Your task to perform on an android device: star an email in the gmail app Image 0: 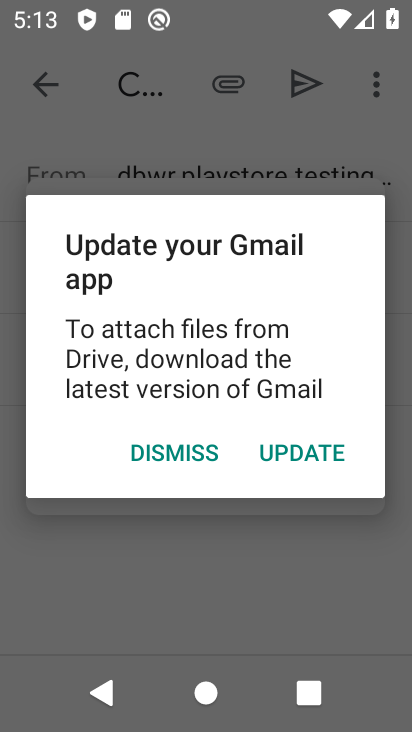
Step 0: press home button
Your task to perform on an android device: star an email in the gmail app Image 1: 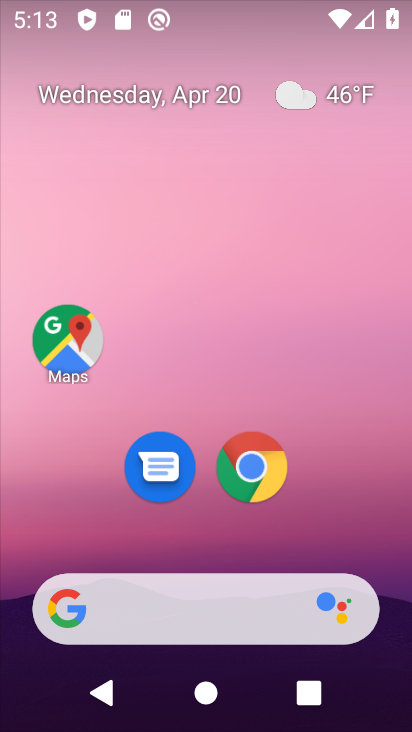
Step 1: drag from (223, 352) to (315, 32)
Your task to perform on an android device: star an email in the gmail app Image 2: 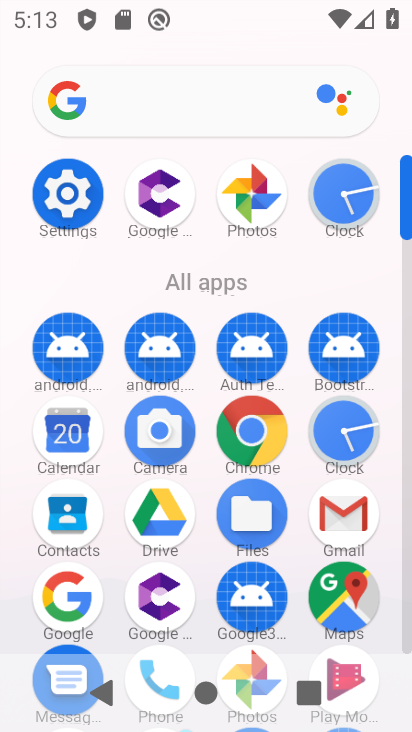
Step 2: click (347, 517)
Your task to perform on an android device: star an email in the gmail app Image 3: 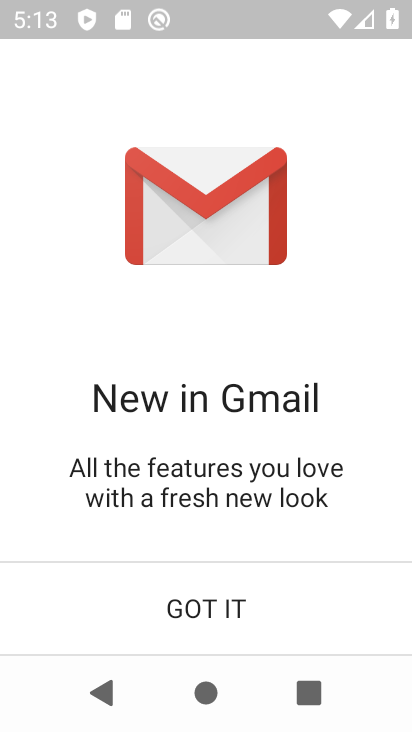
Step 3: click (247, 598)
Your task to perform on an android device: star an email in the gmail app Image 4: 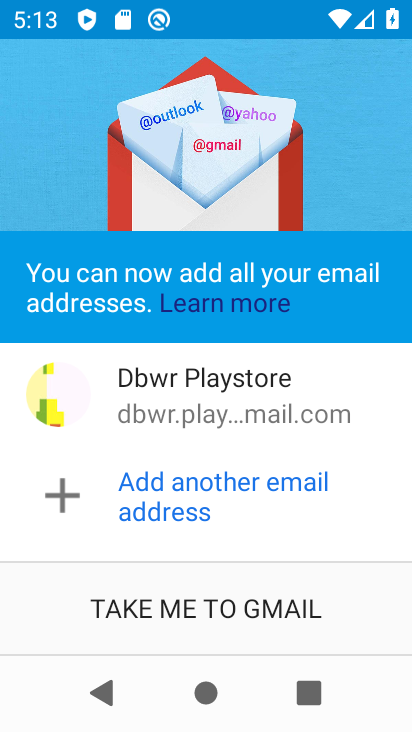
Step 4: click (244, 601)
Your task to perform on an android device: star an email in the gmail app Image 5: 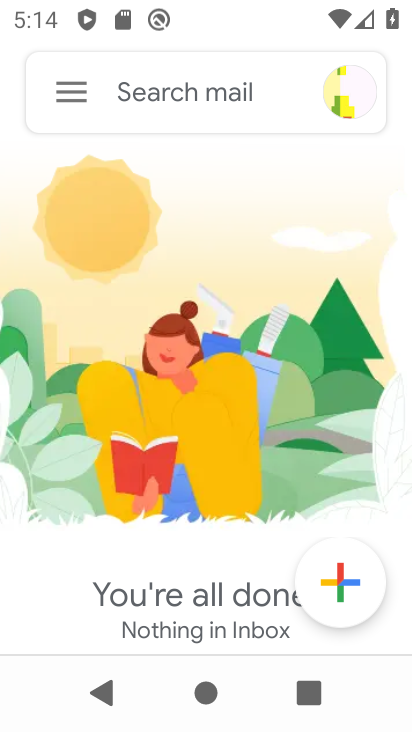
Step 5: click (65, 106)
Your task to perform on an android device: star an email in the gmail app Image 6: 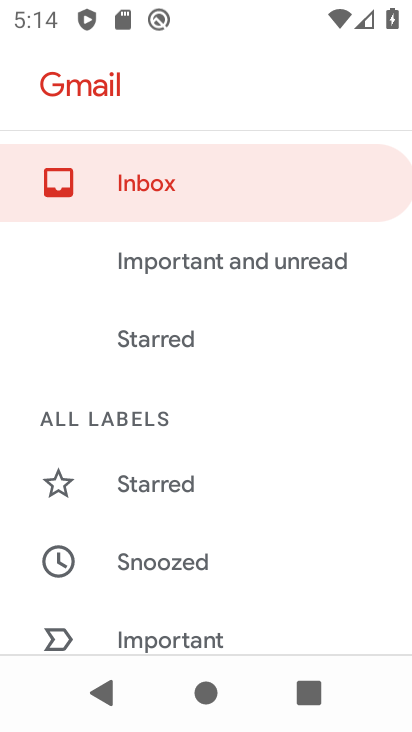
Step 6: drag from (129, 529) to (208, 223)
Your task to perform on an android device: star an email in the gmail app Image 7: 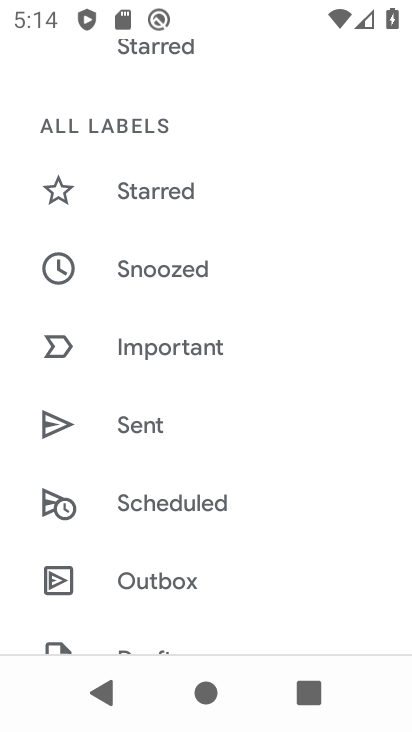
Step 7: drag from (145, 539) to (215, 98)
Your task to perform on an android device: star an email in the gmail app Image 8: 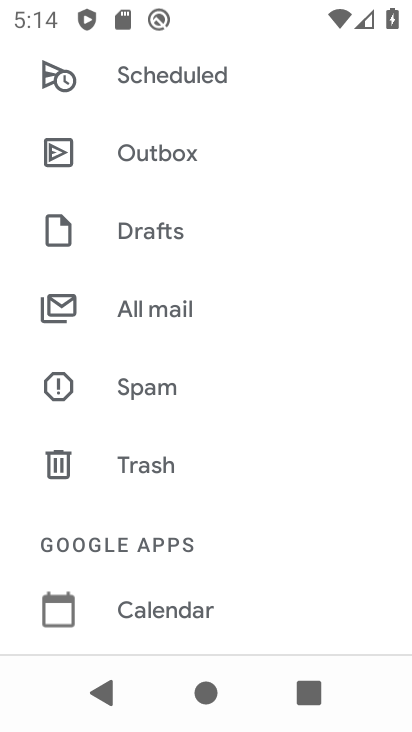
Step 8: click (183, 318)
Your task to perform on an android device: star an email in the gmail app Image 9: 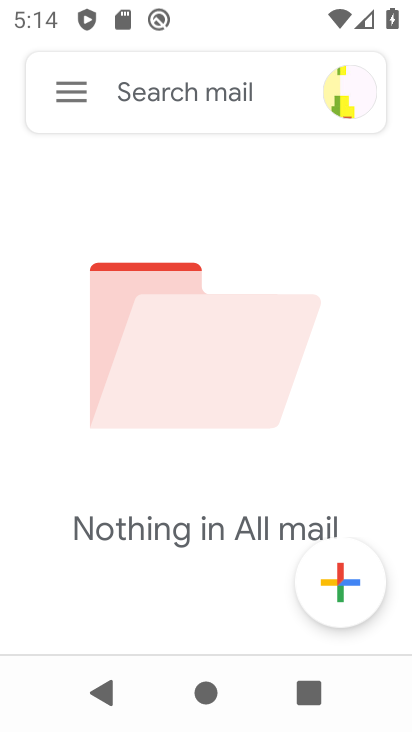
Step 9: task complete